Your task to perform on an android device: Open Chrome and go to settings Image 0: 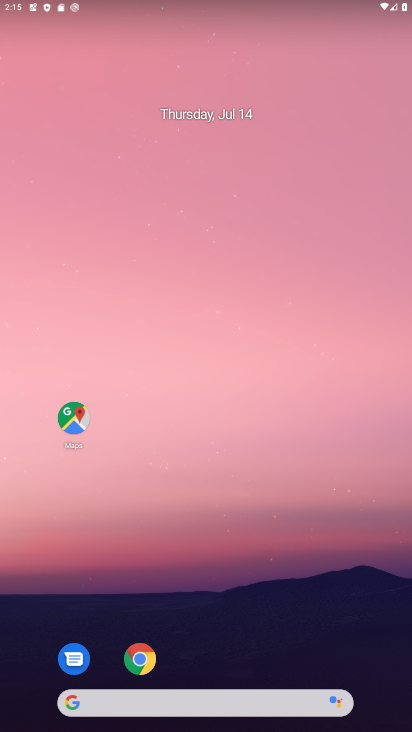
Step 0: press home button
Your task to perform on an android device: Open Chrome and go to settings Image 1: 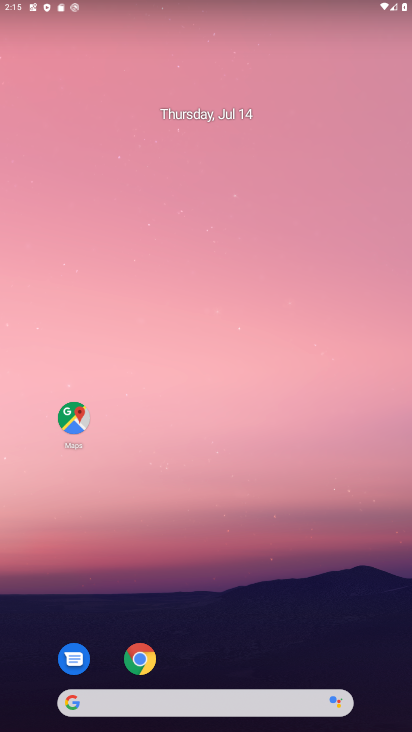
Step 1: drag from (242, 667) to (226, 171)
Your task to perform on an android device: Open Chrome and go to settings Image 2: 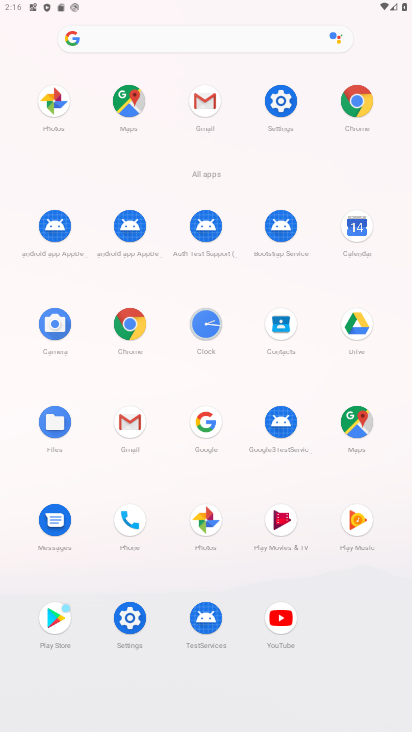
Step 2: click (359, 101)
Your task to perform on an android device: Open Chrome and go to settings Image 3: 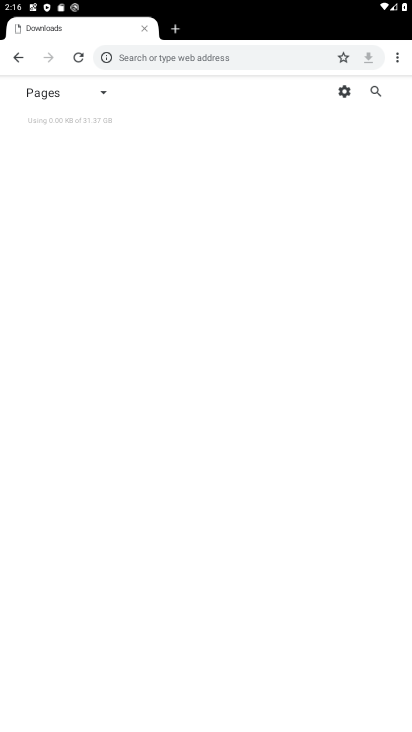
Step 3: task complete